Your task to perform on an android device: Clear the cart on bestbuy.com. Image 0: 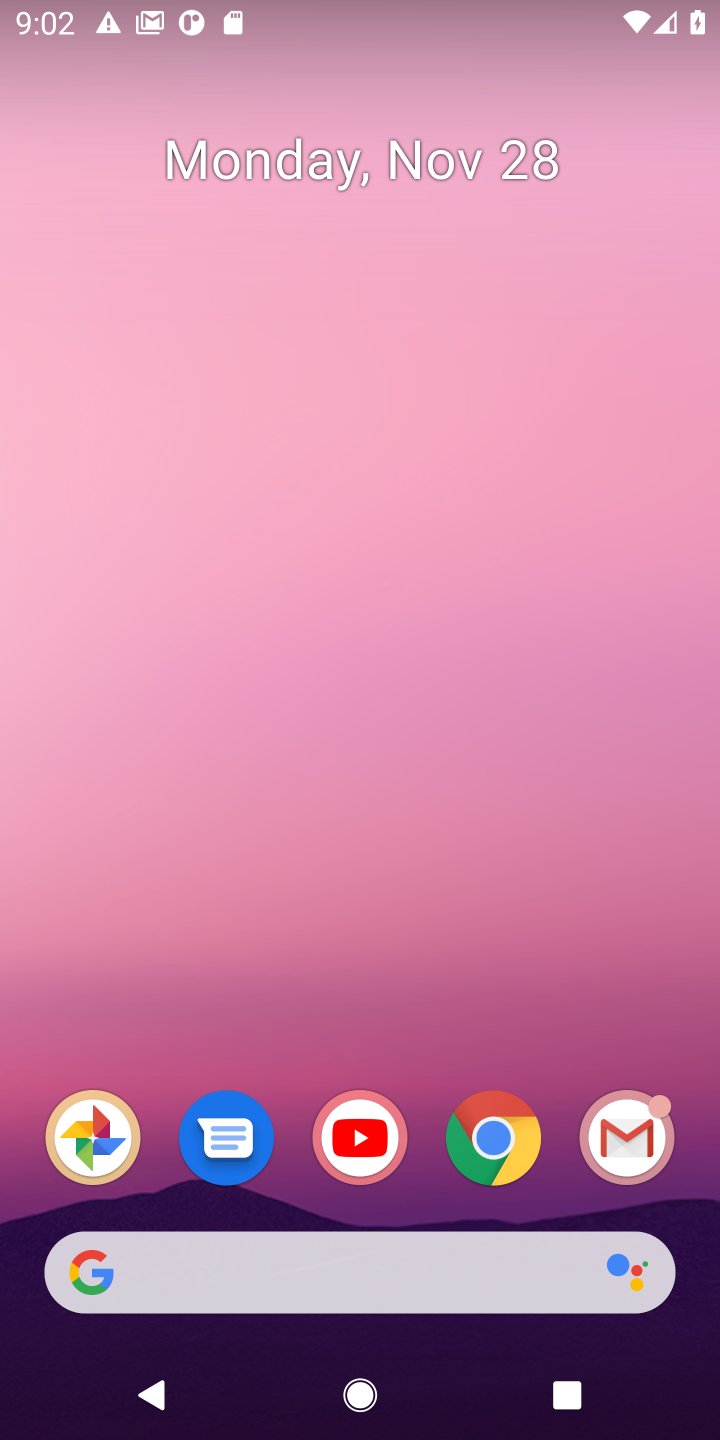
Step 0: click (499, 1137)
Your task to perform on an android device: Clear the cart on bestbuy.com. Image 1: 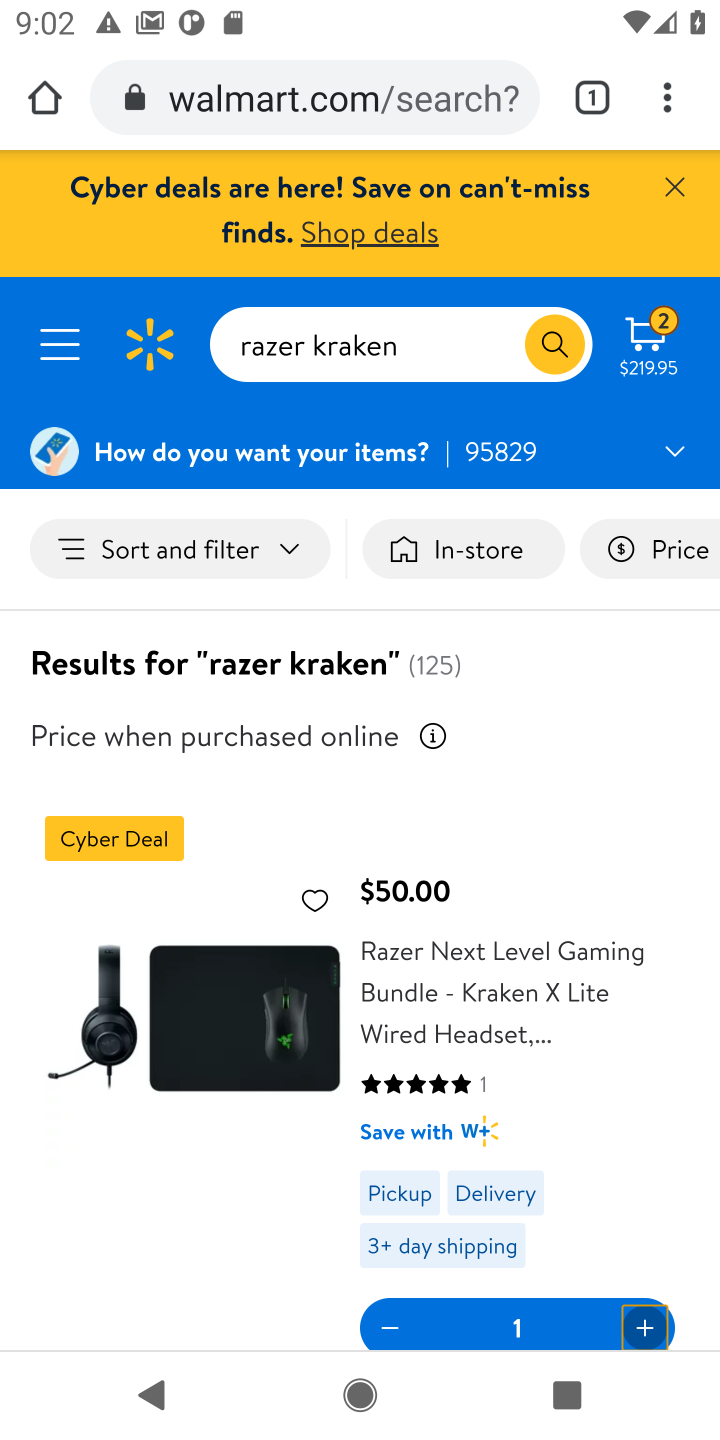
Step 1: click (372, 105)
Your task to perform on an android device: Clear the cart on bestbuy.com. Image 2: 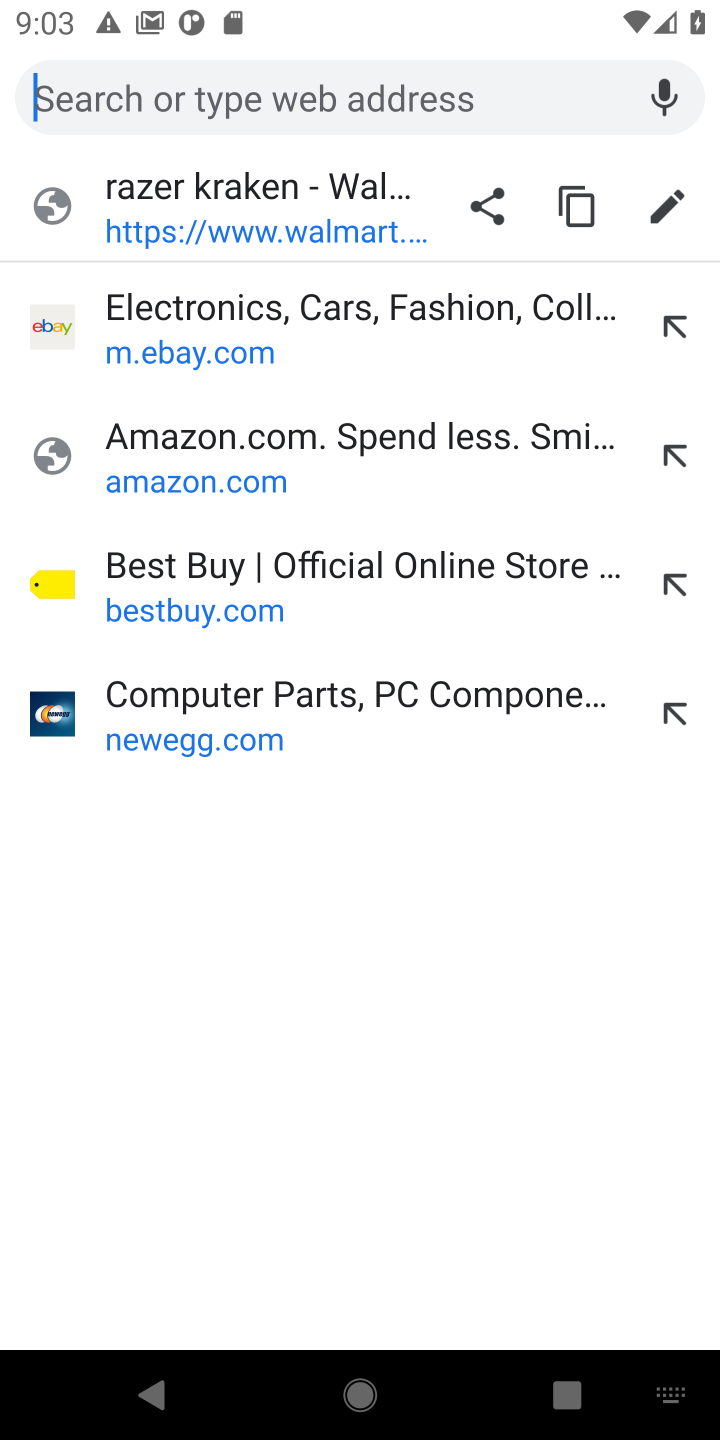
Step 2: click (175, 575)
Your task to perform on an android device: Clear the cart on bestbuy.com. Image 3: 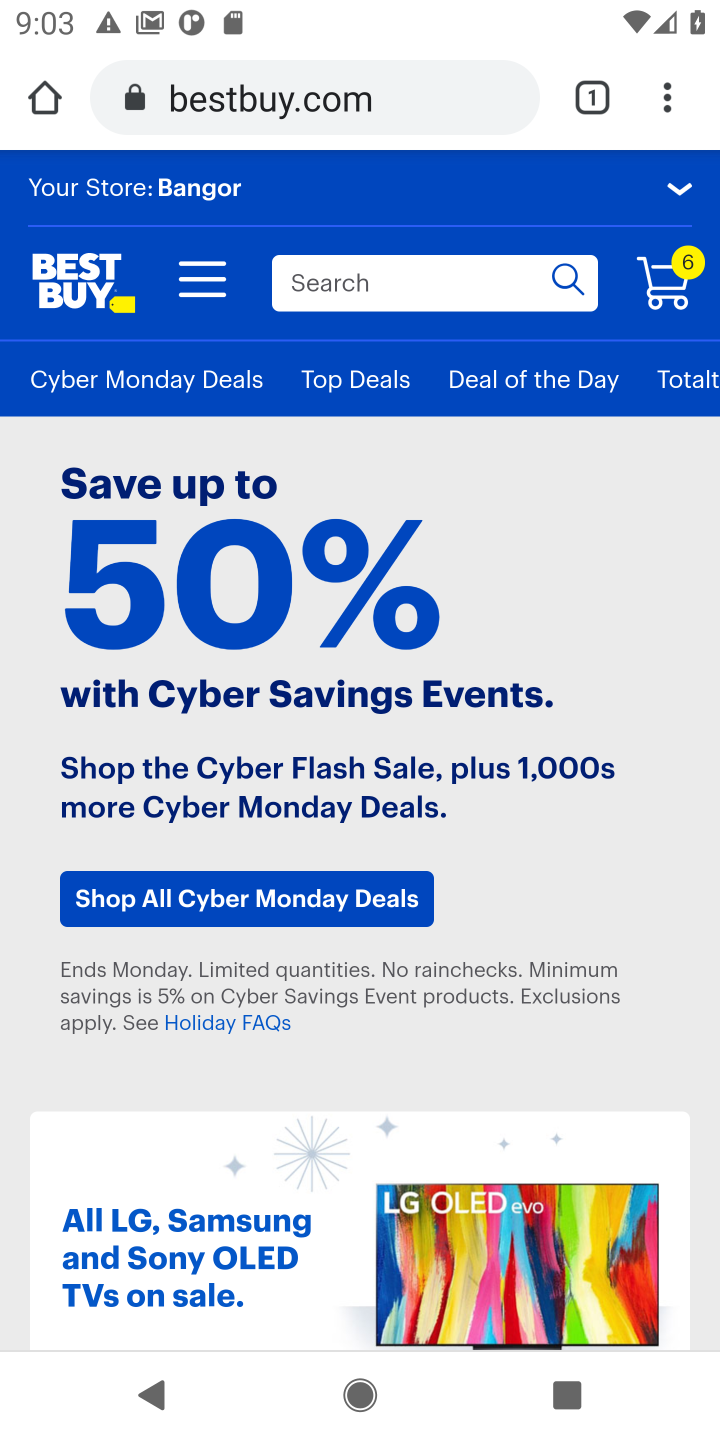
Step 3: click (672, 282)
Your task to perform on an android device: Clear the cart on bestbuy.com. Image 4: 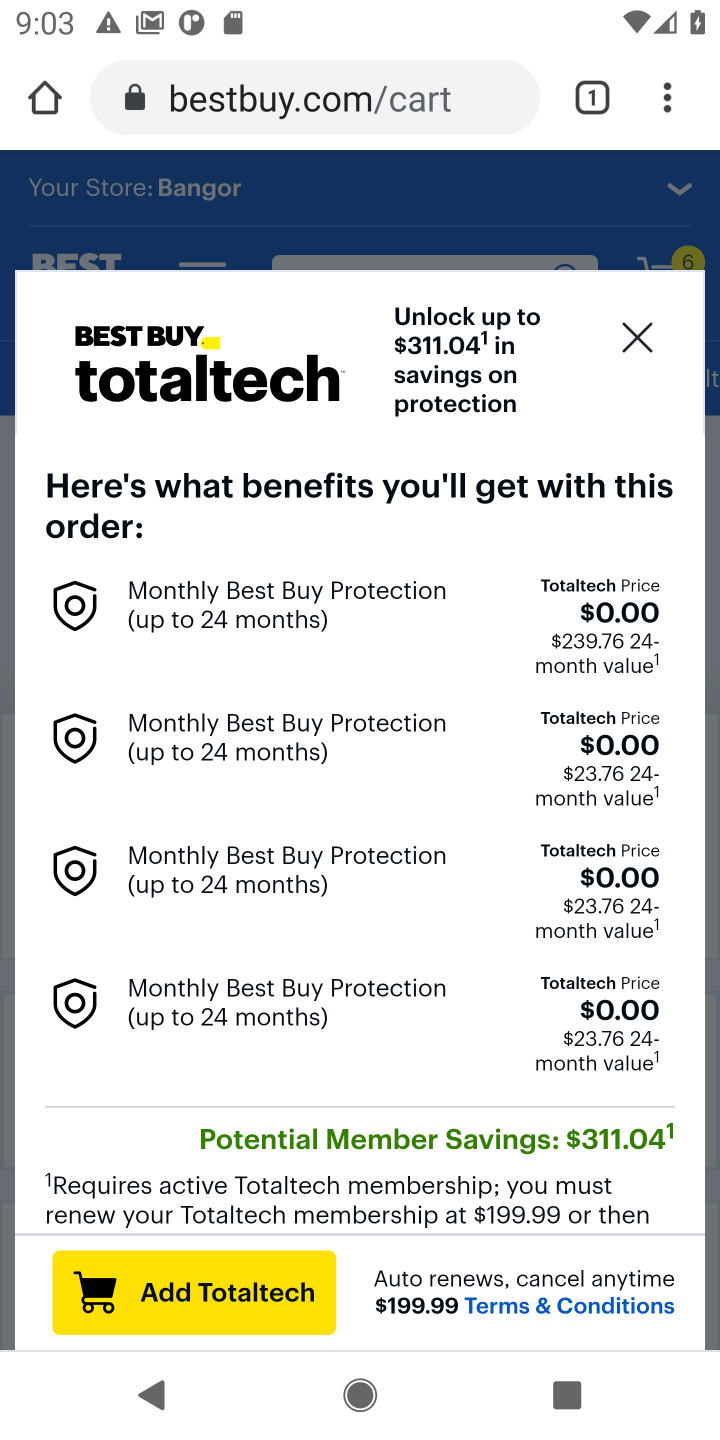
Step 4: click (642, 334)
Your task to perform on an android device: Clear the cart on bestbuy.com. Image 5: 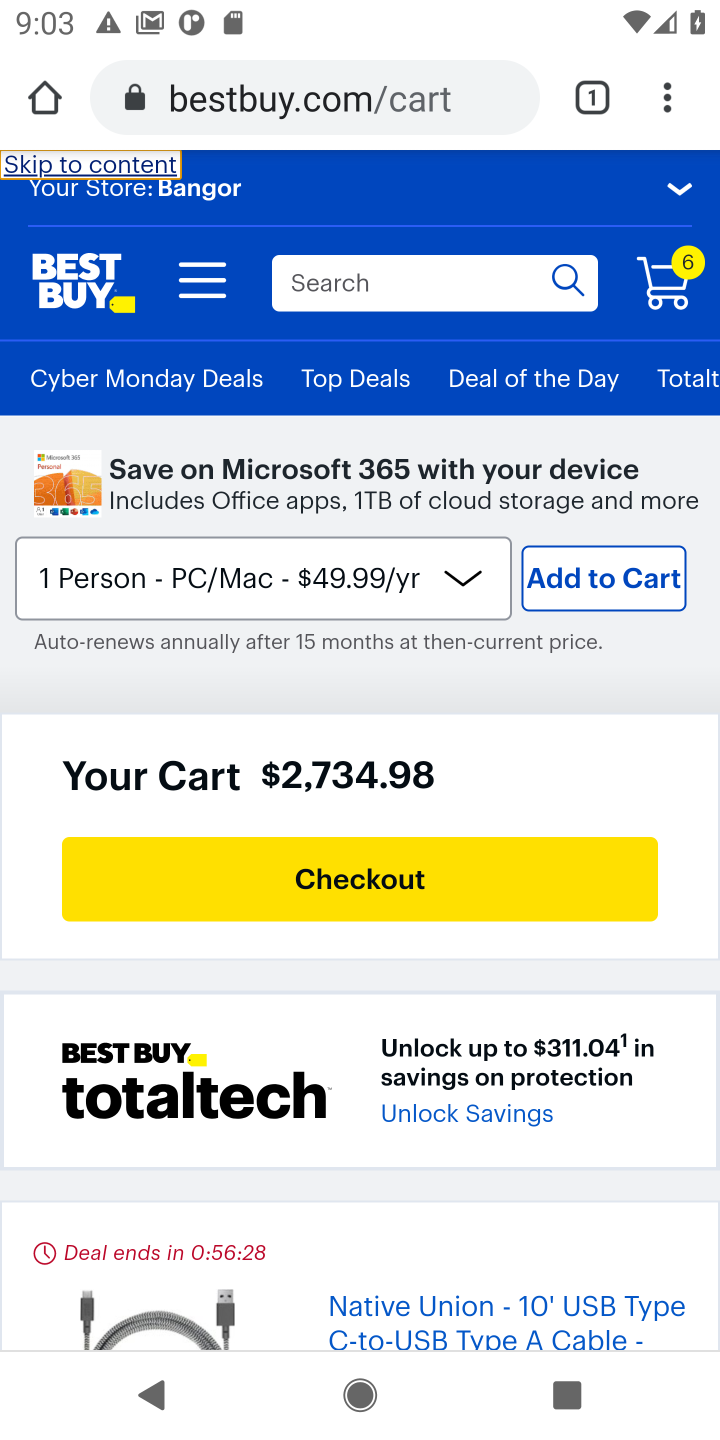
Step 5: drag from (626, 930) to (536, 485)
Your task to perform on an android device: Clear the cart on bestbuy.com. Image 6: 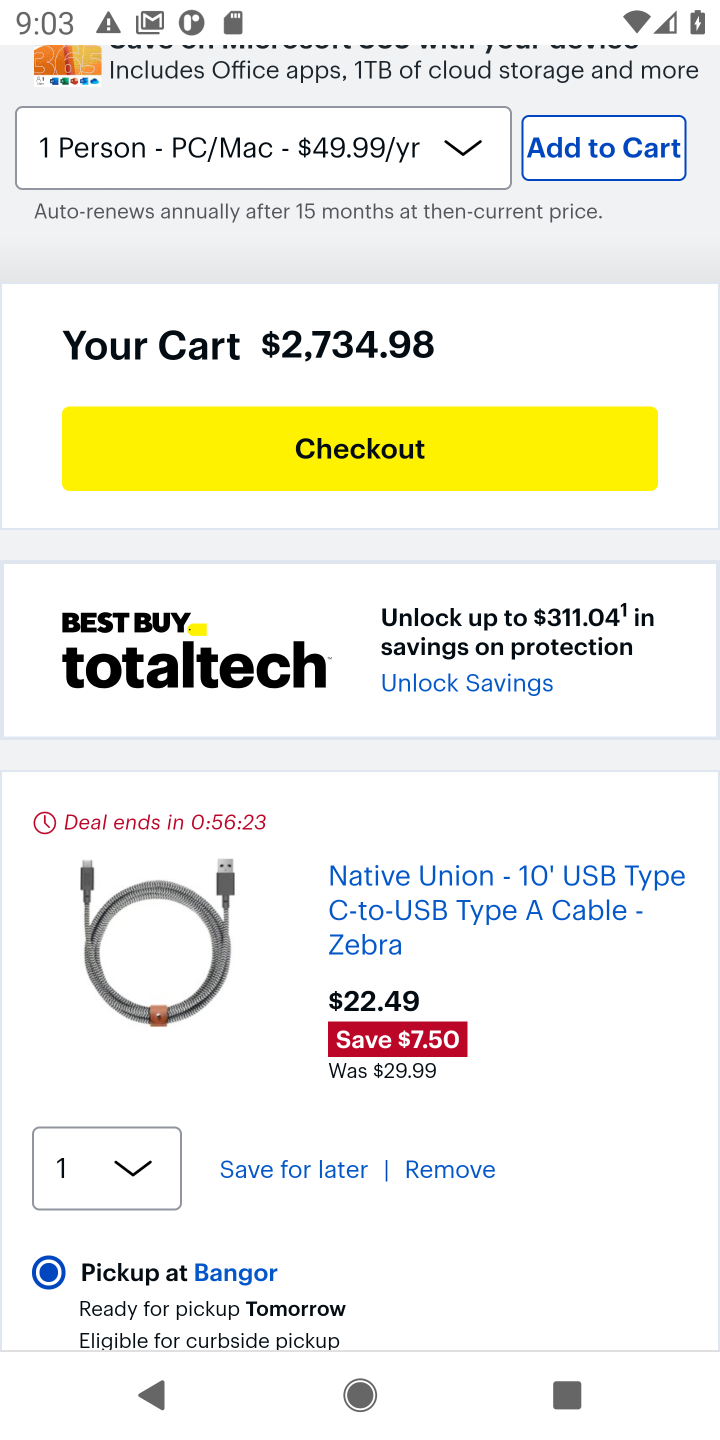
Step 6: click (437, 1160)
Your task to perform on an android device: Clear the cart on bestbuy.com. Image 7: 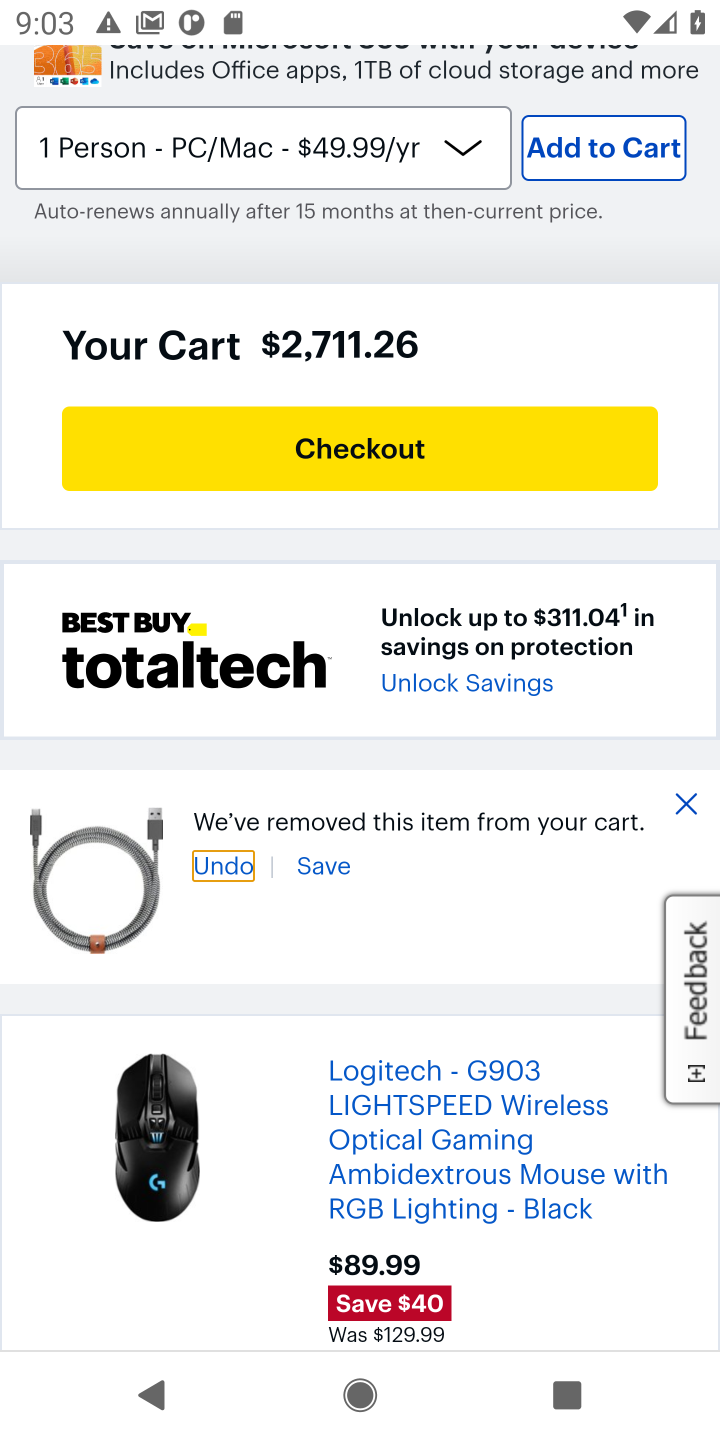
Step 7: drag from (487, 984) to (495, 429)
Your task to perform on an android device: Clear the cart on bestbuy.com. Image 8: 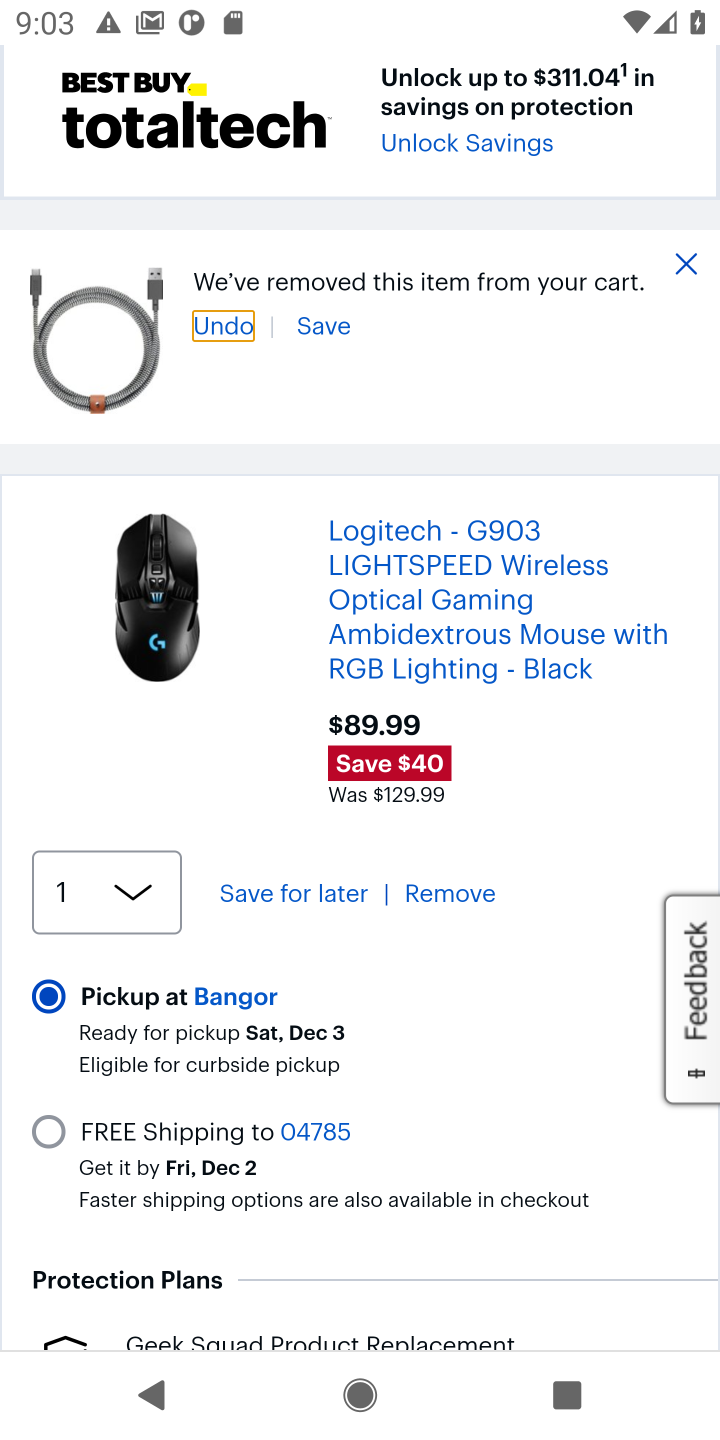
Step 8: click (433, 894)
Your task to perform on an android device: Clear the cart on bestbuy.com. Image 9: 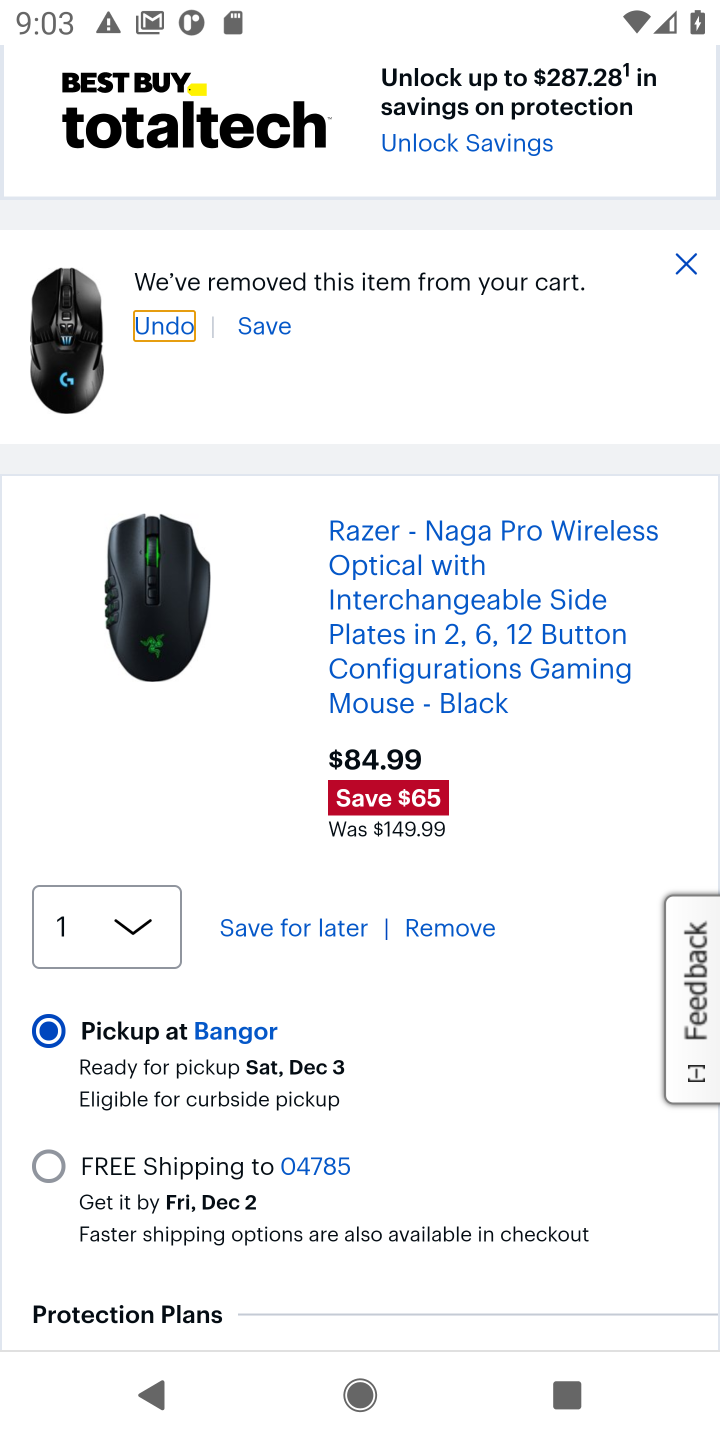
Step 9: click (443, 924)
Your task to perform on an android device: Clear the cart on bestbuy.com. Image 10: 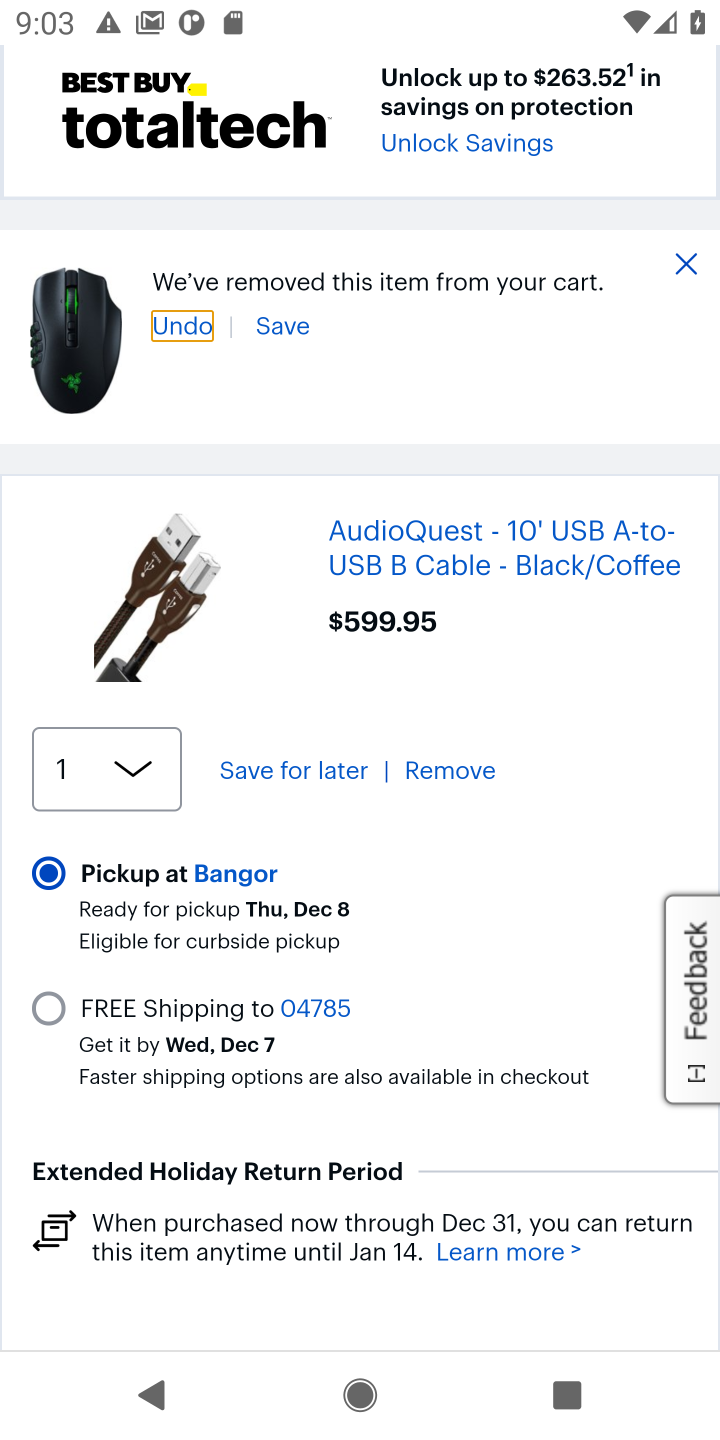
Step 10: click (443, 779)
Your task to perform on an android device: Clear the cart on bestbuy.com. Image 11: 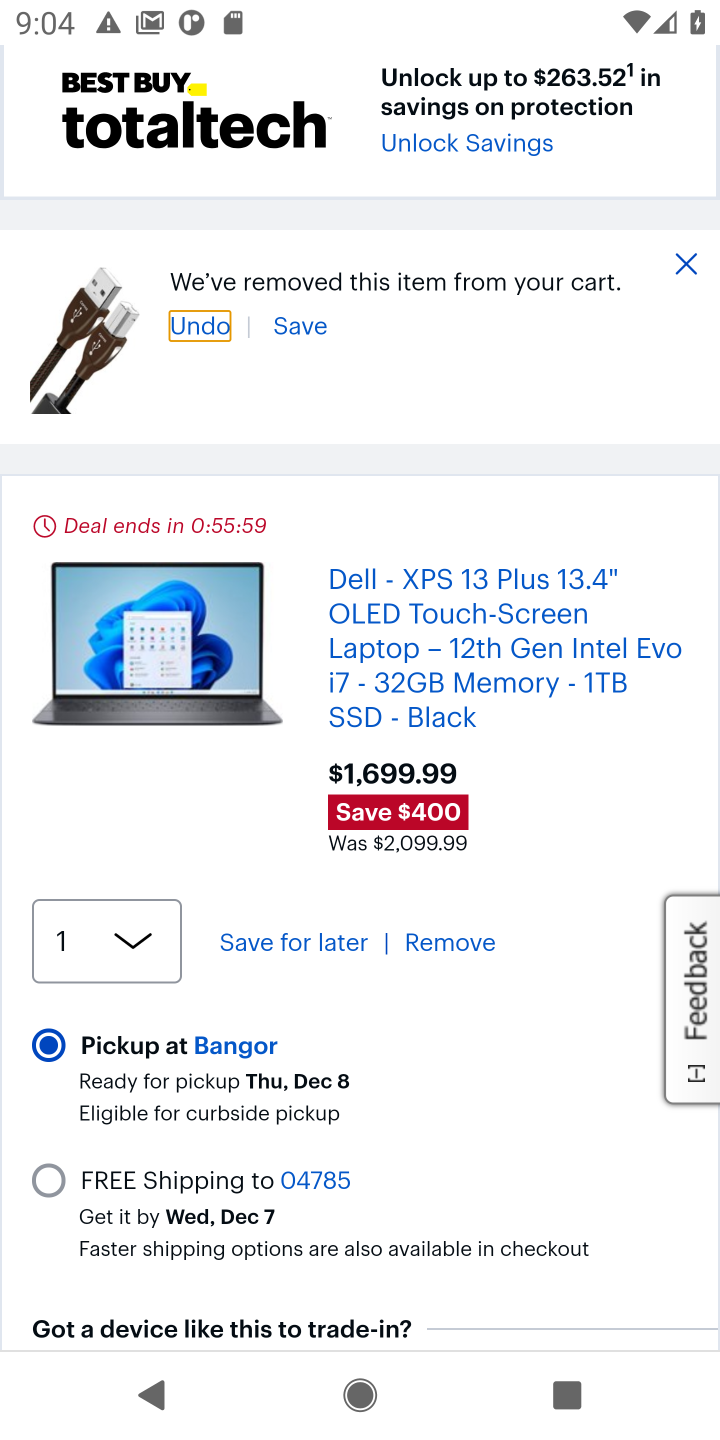
Step 11: click (441, 933)
Your task to perform on an android device: Clear the cart on bestbuy.com. Image 12: 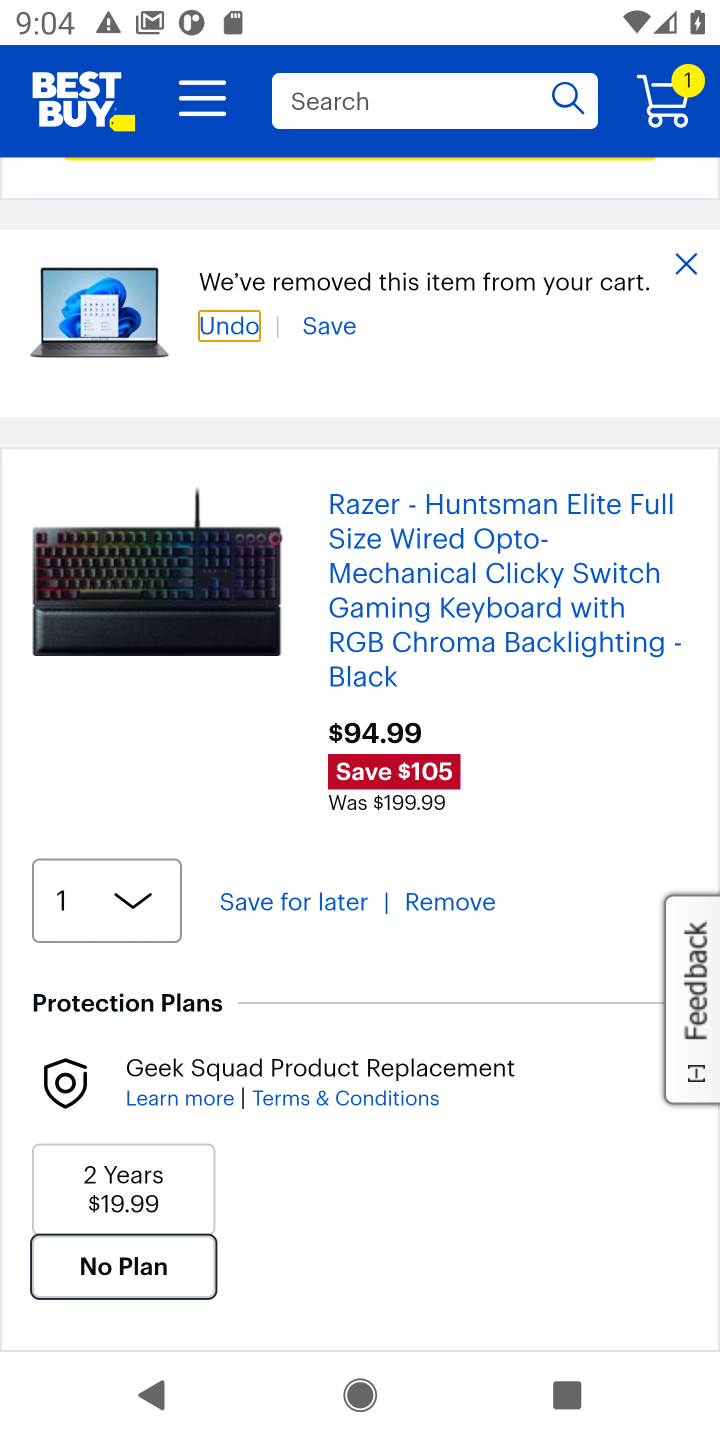
Step 12: click (450, 899)
Your task to perform on an android device: Clear the cart on bestbuy.com. Image 13: 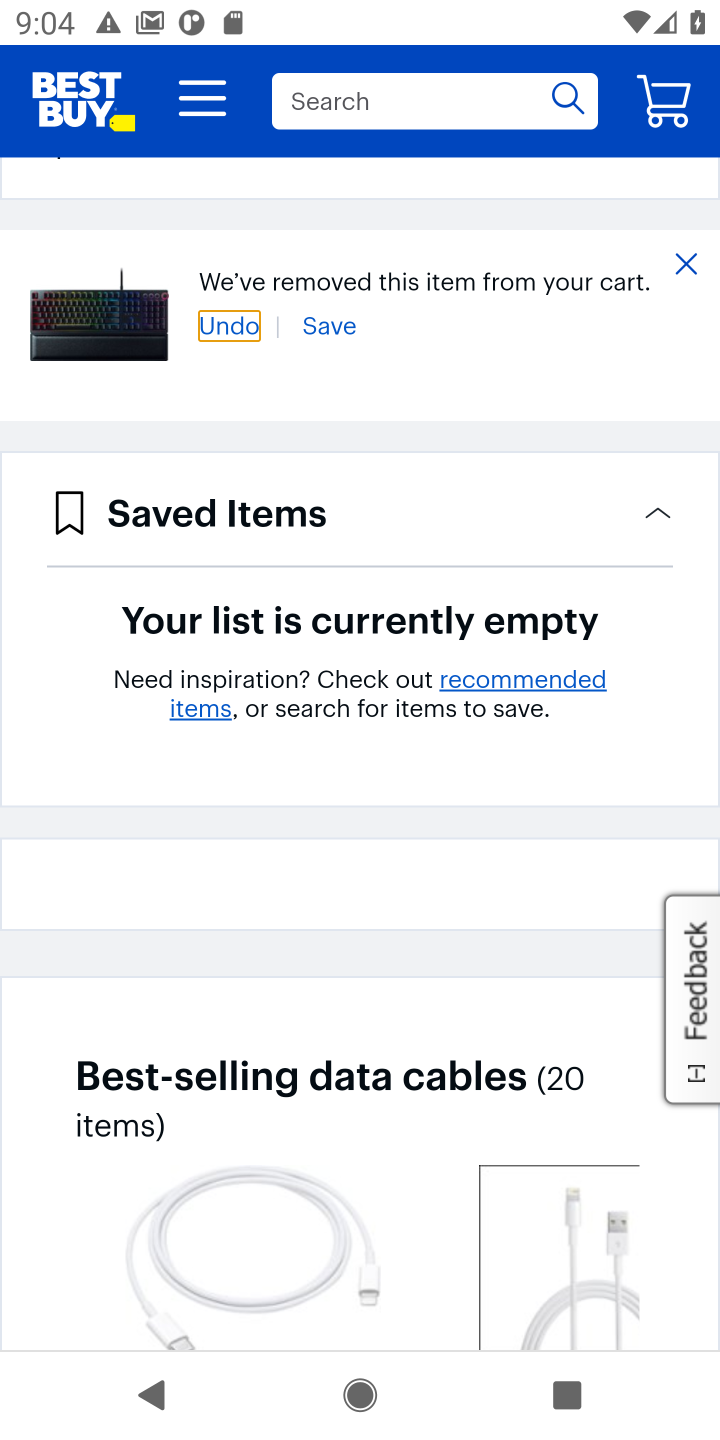
Step 13: task complete